Your task to perform on an android device: Open notification settings Image 0: 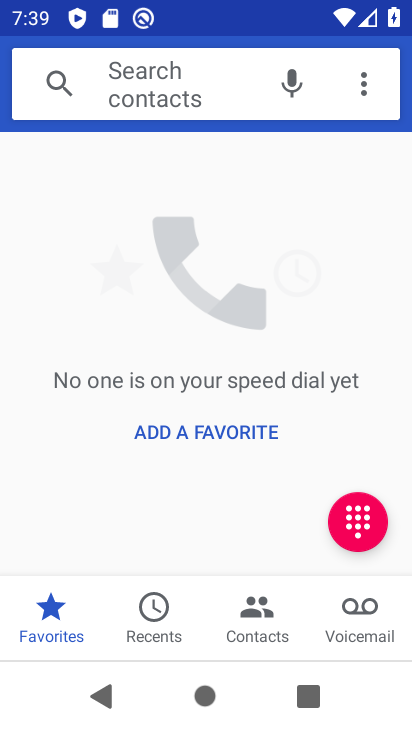
Step 0: press back button
Your task to perform on an android device: Open notification settings Image 1: 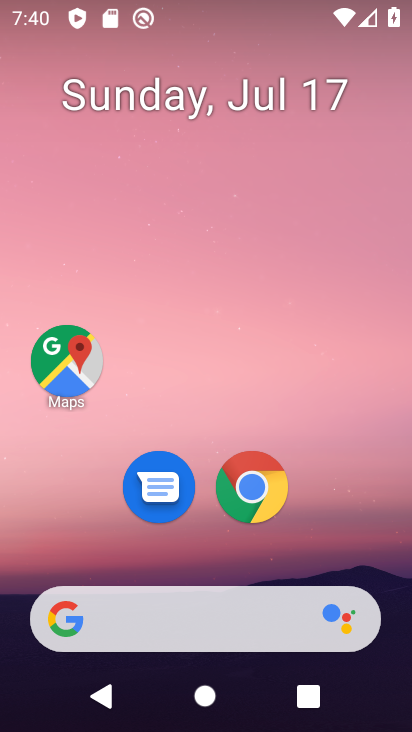
Step 1: drag from (137, 563) to (283, 23)
Your task to perform on an android device: Open notification settings Image 2: 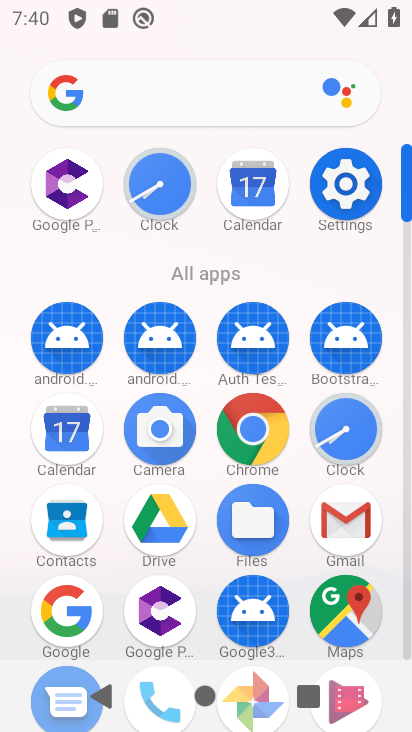
Step 2: click (361, 168)
Your task to perform on an android device: Open notification settings Image 3: 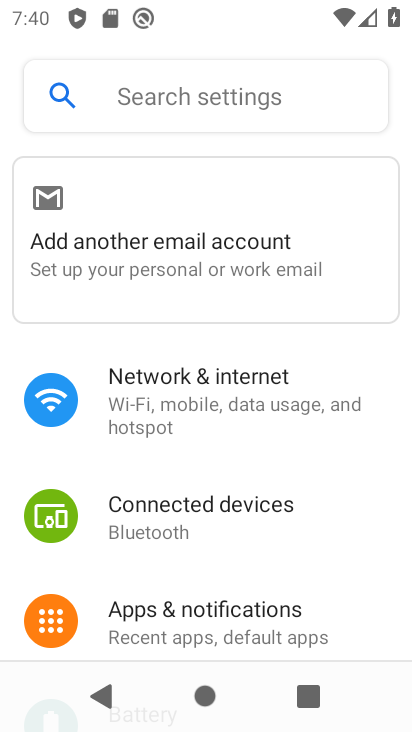
Step 3: click (168, 608)
Your task to perform on an android device: Open notification settings Image 4: 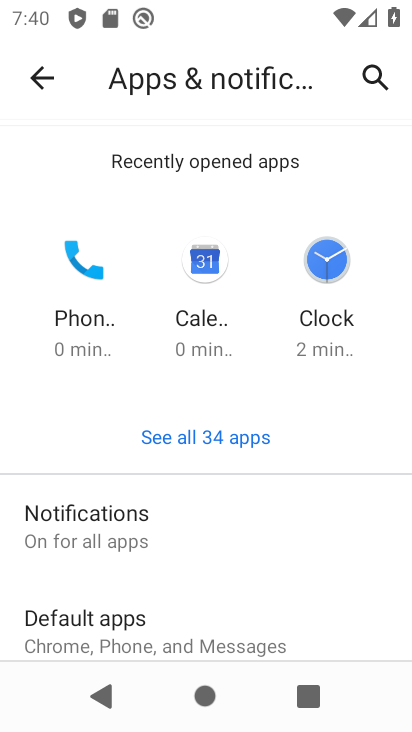
Step 4: task complete